Your task to perform on an android device: Open the Play Movies app and select the watchlist tab. Image 0: 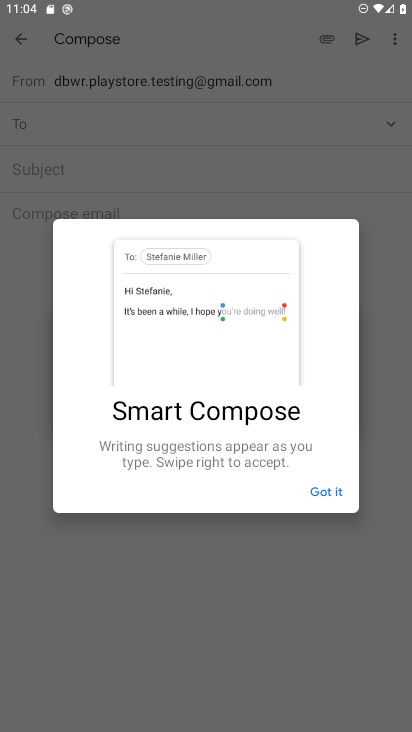
Step 0: press home button
Your task to perform on an android device: Open the Play Movies app and select the watchlist tab. Image 1: 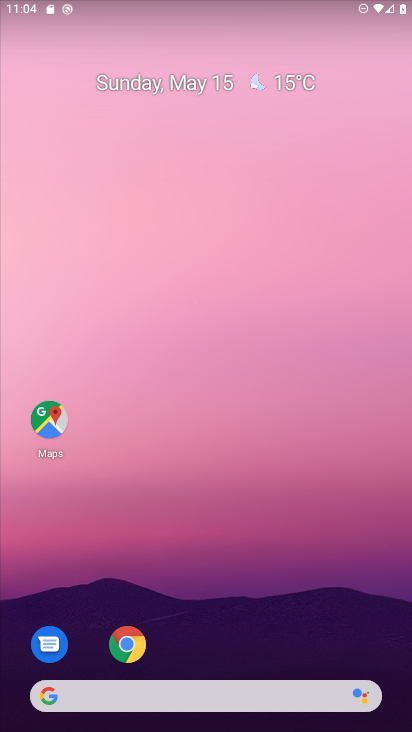
Step 1: drag from (221, 668) to (263, 136)
Your task to perform on an android device: Open the Play Movies app and select the watchlist tab. Image 2: 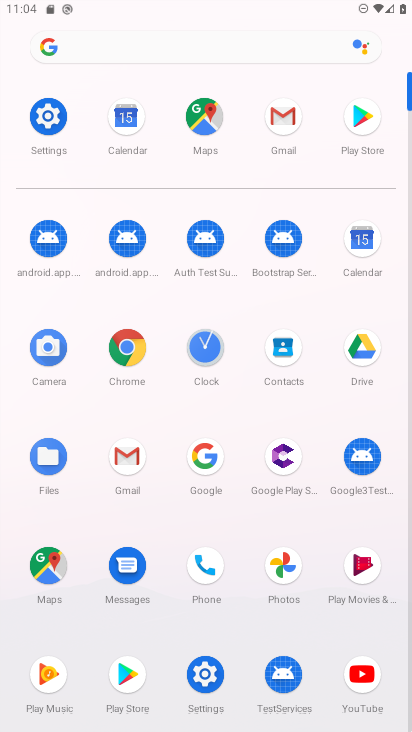
Step 2: click (373, 561)
Your task to perform on an android device: Open the Play Movies app and select the watchlist tab. Image 3: 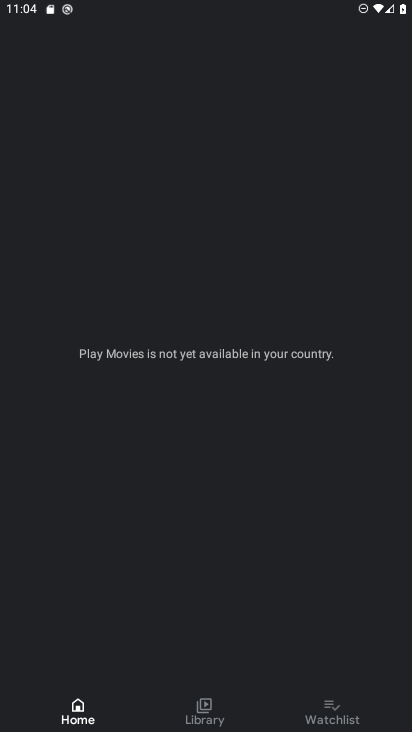
Step 3: click (338, 716)
Your task to perform on an android device: Open the Play Movies app and select the watchlist tab. Image 4: 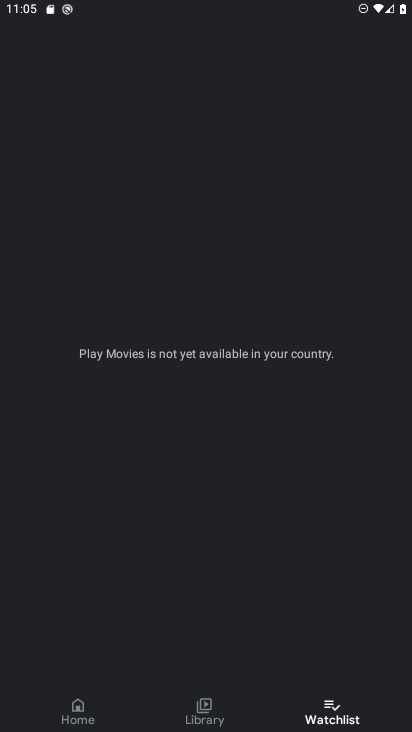
Step 4: task complete